Your task to perform on an android device: Open Chrome and go to settings Image 0: 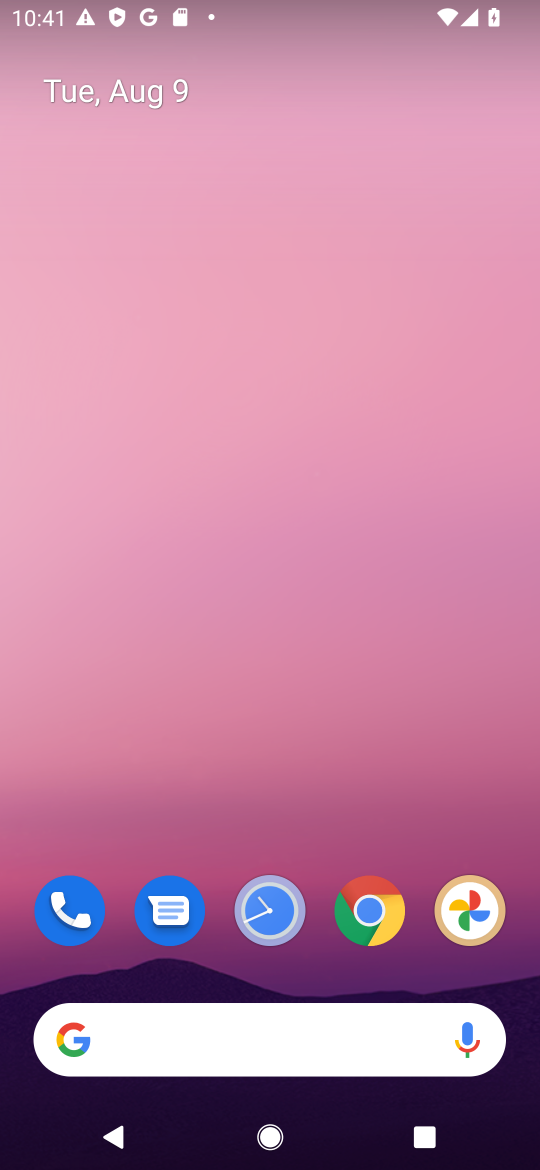
Step 0: click (346, 919)
Your task to perform on an android device: Open Chrome and go to settings Image 1: 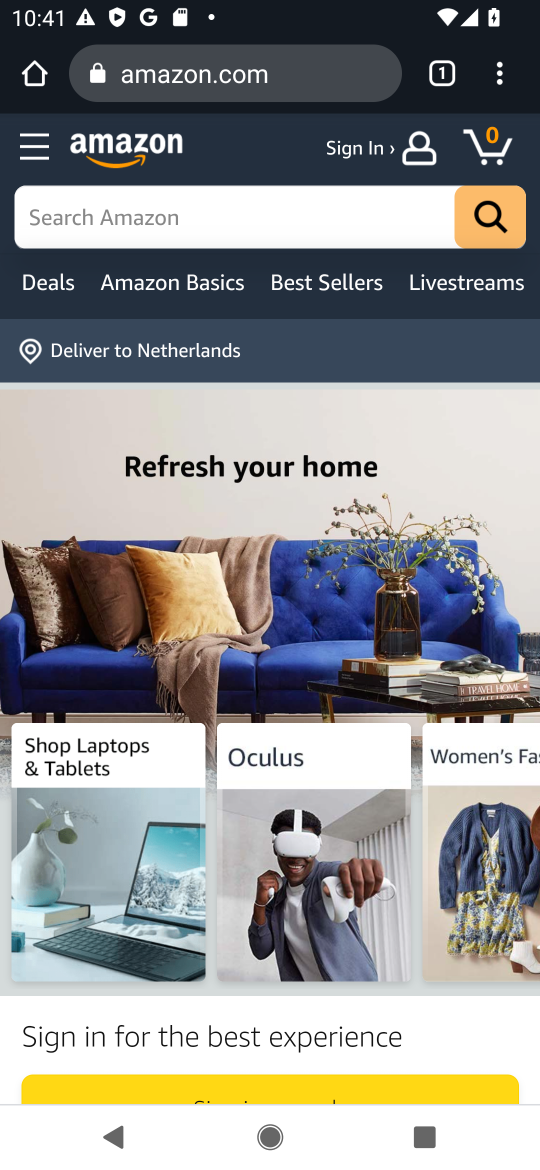
Step 1: click (492, 73)
Your task to perform on an android device: Open Chrome and go to settings Image 2: 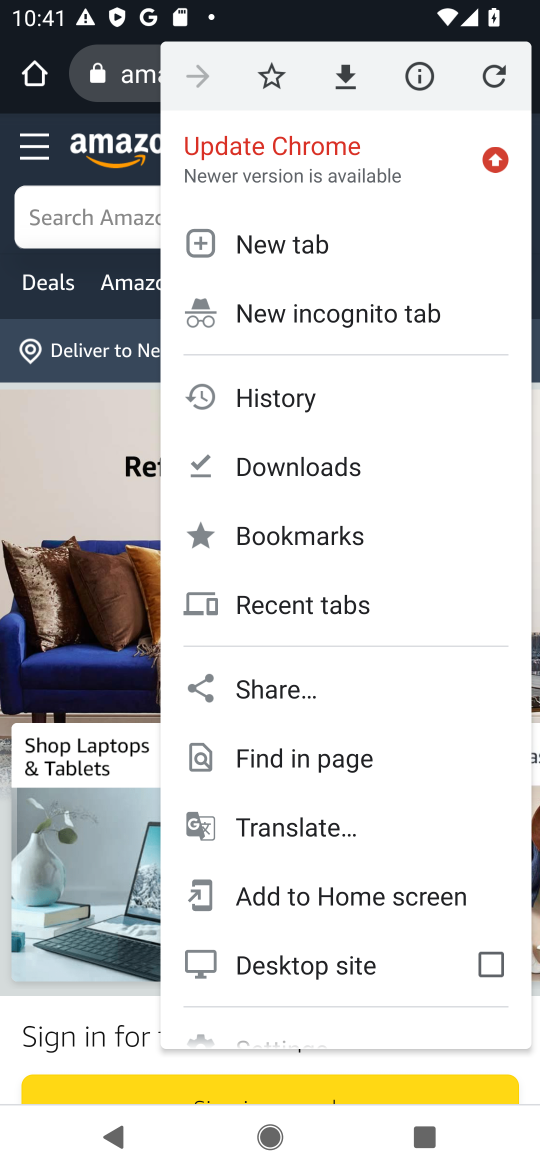
Step 2: drag from (268, 904) to (474, 247)
Your task to perform on an android device: Open Chrome and go to settings Image 3: 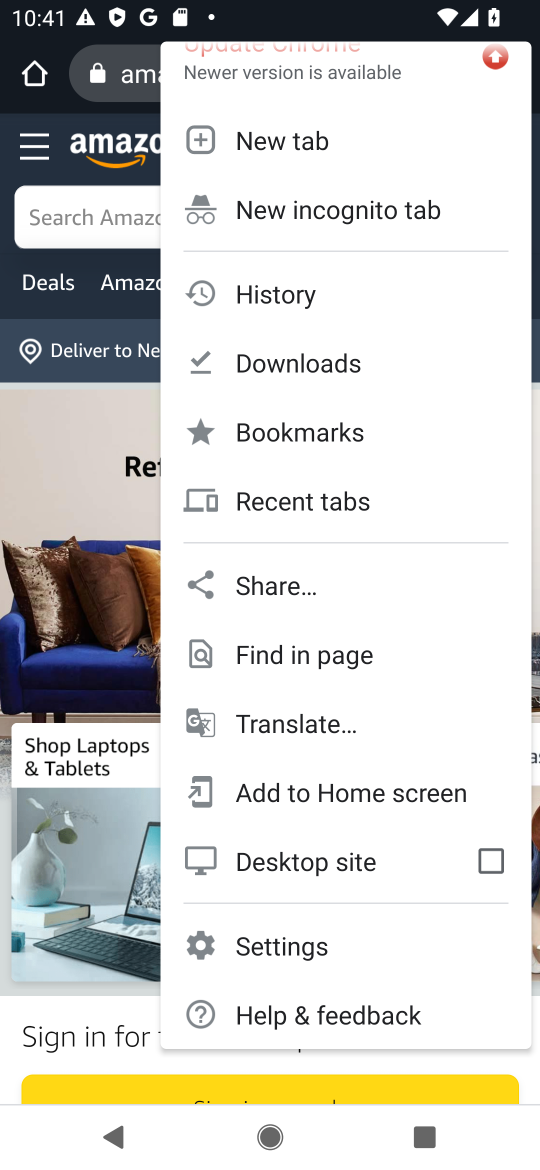
Step 3: click (277, 938)
Your task to perform on an android device: Open Chrome and go to settings Image 4: 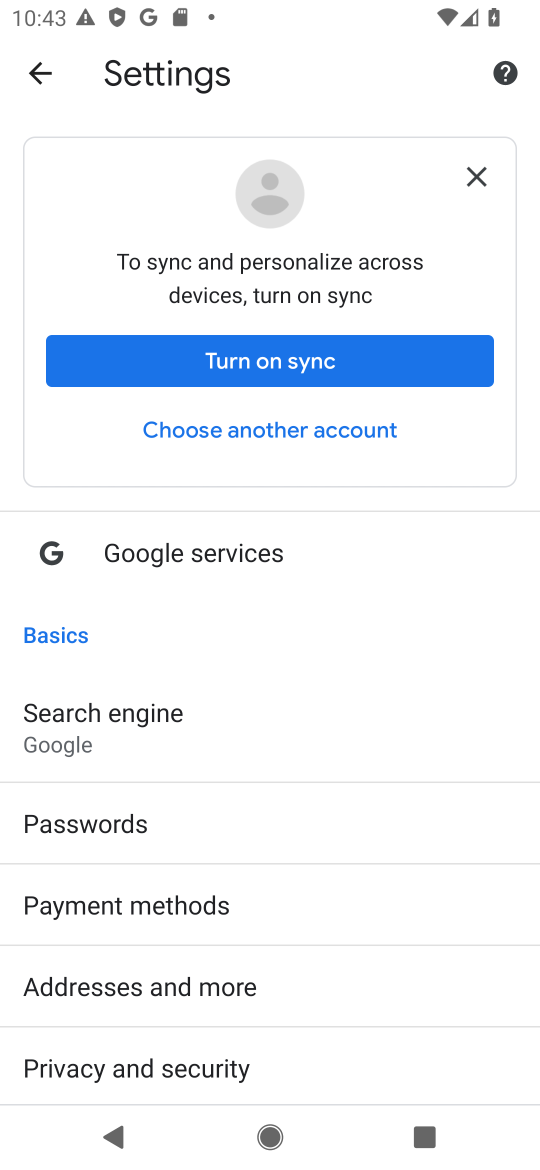
Step 4: task complete